Your task to perform on an android device: Open calendar and show me the first week of next month Image 0: 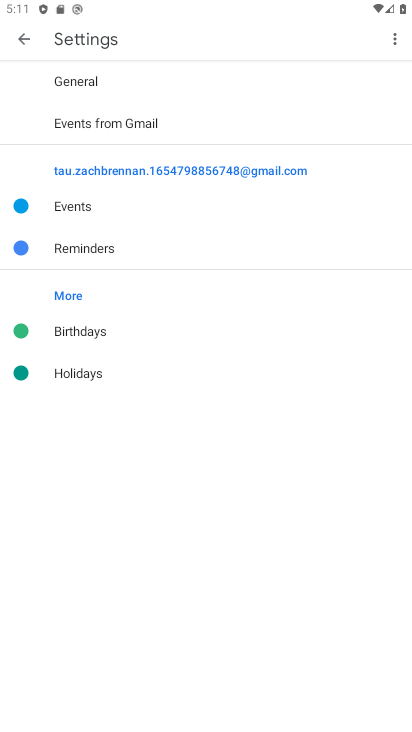
Step 0: press home button
Your task to perform on an android device: Open calendar and show me the first week of next month Image 1: 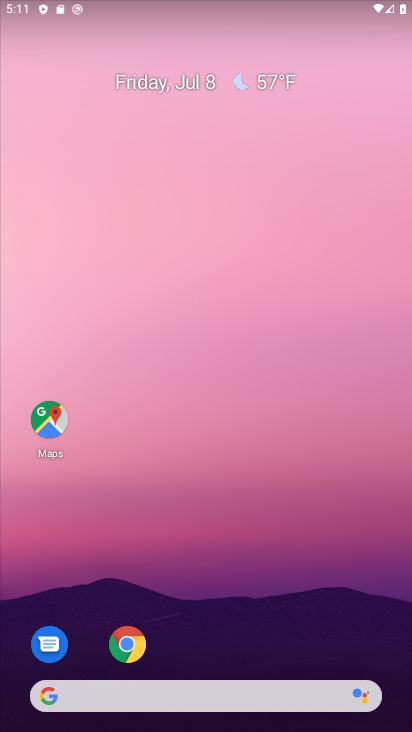
Step 1: drag from (189, 700) to (163, 186)
Your task to perform on an android device: Open calendar and show me the first week of next month Image 2: 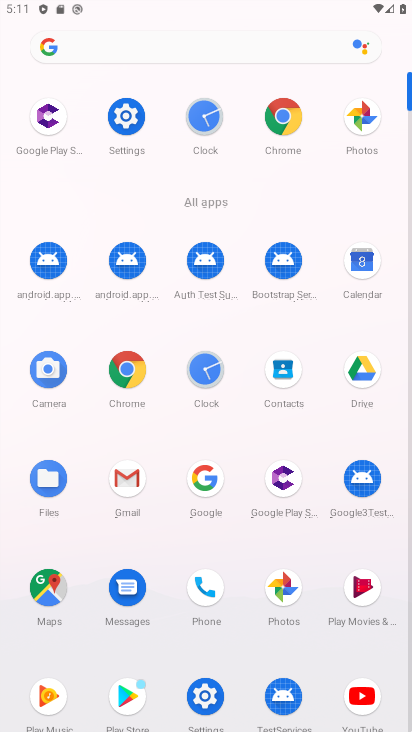
Step 2: click (362, 259)
Your task to perform on an android device: Open calendar and show me the first week of next month Image 3: 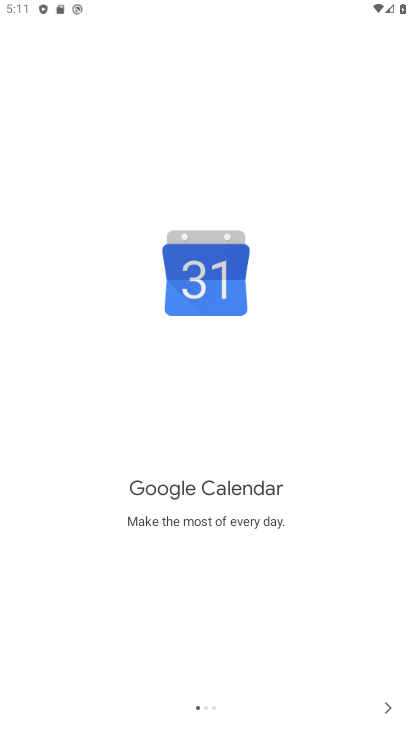
Step 3: click (386, 703)
Your task to perform on an android device: Open calendar and show me the first week of next month Image 4: 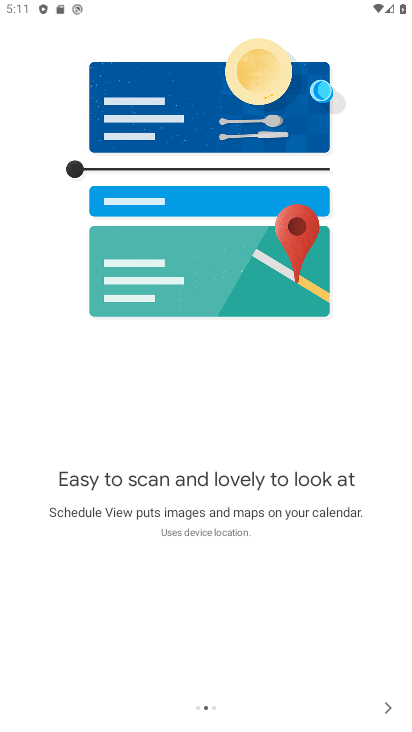
Step 4: click (386, 703)
Your task to perform on an android device: Open calendar and show me the first week of next month Image 5: 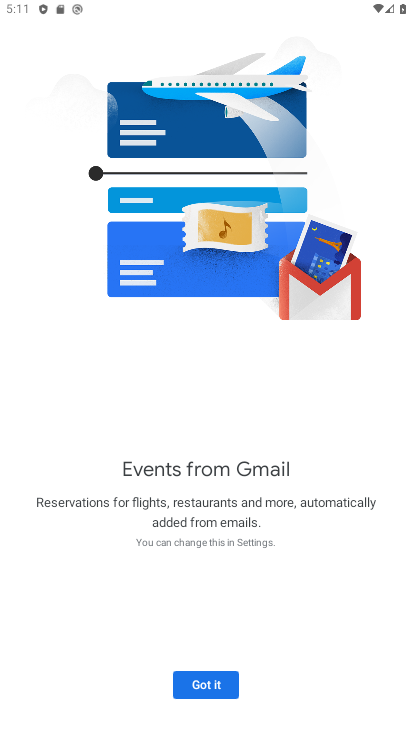
Step 5: click (218, 687)
Your task to perform on an android device: Open calendar and show me the first week of next month Image 6: 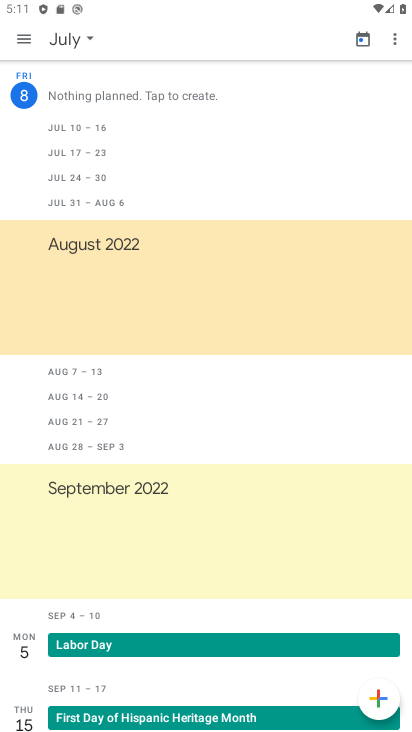
Step 6: click (393, 41)
Your task to perform on an android device: Open calendar and show me the first week of next month Image 7: 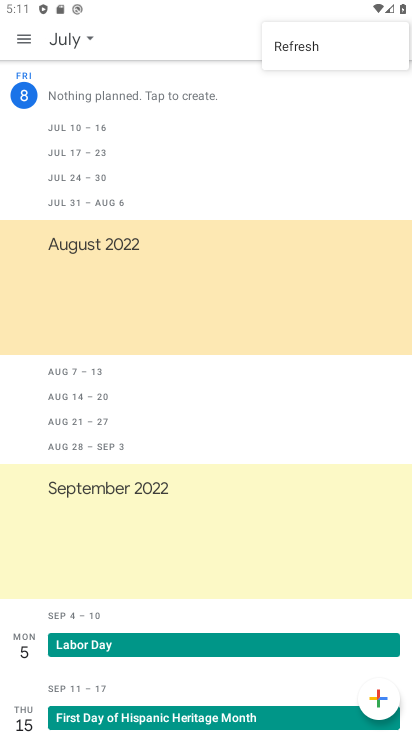
Step 7: click (24, 38)
Your task to perform on an android device: Open calendar and show me the first week of next month Image 8: 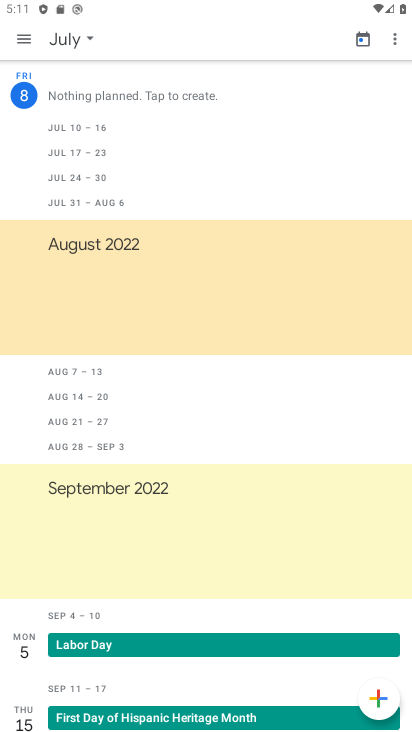
Step 8: click (85, 33)
Your task to perform on an android device: Open calendar and show me the first week of next month Image 9: 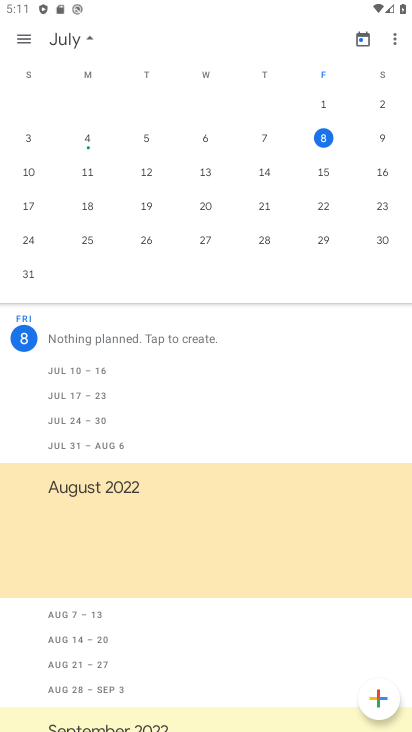
Step 9: drag from (383, 199) to (7, 235)
Your task to perform on an android device: Open calendar and show me the first week of next month Image 10: 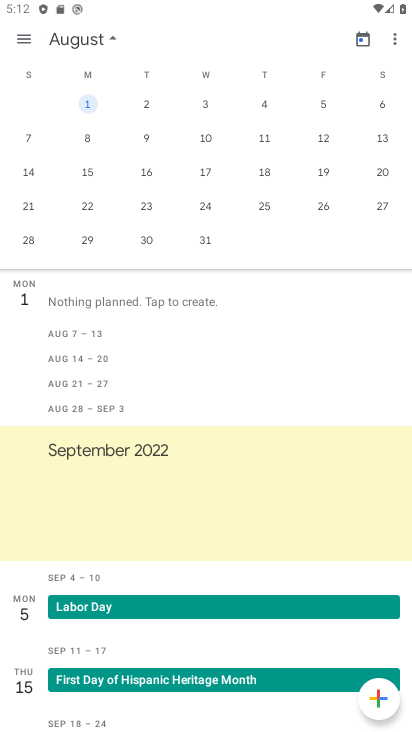
Step 10: click (88, 97)
Your task to perform on an android device: Open calendar and show me the first week of next month Image 11: 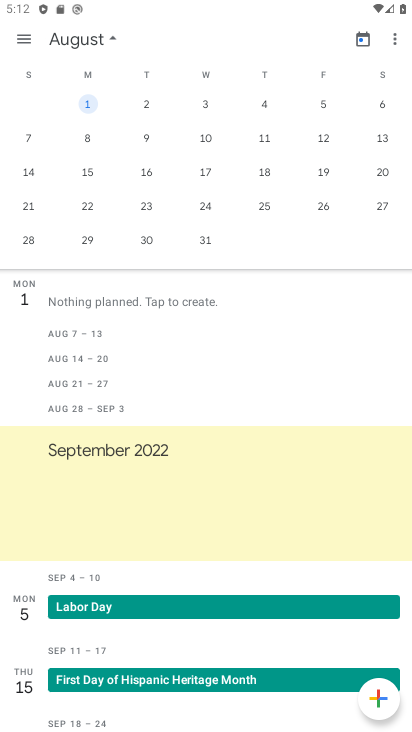
Step 11: click (23, 35)
Your task to perform on an android device: Open calendar and show me the first week of next month Image 12: 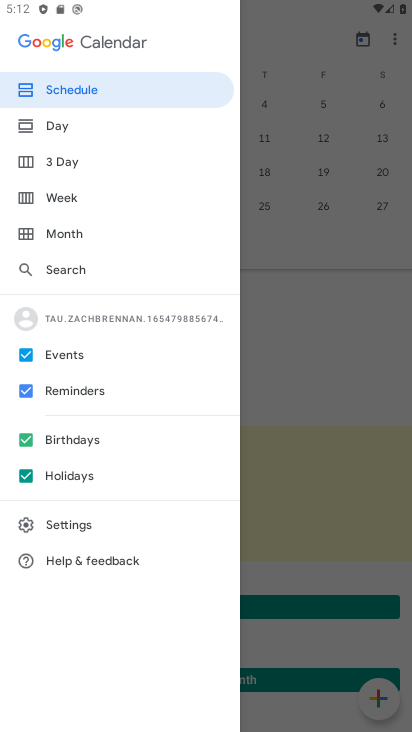
Step 12: click (69, 251)
Your task to perform on an android device: Open calendar and show me the first week of next month Image 13: 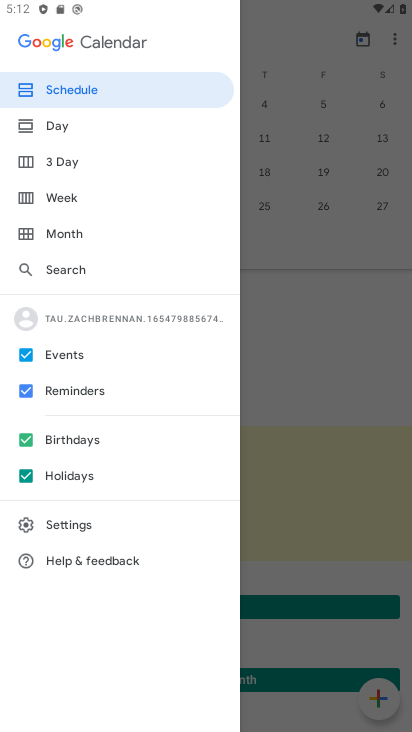
Step 13: click (73, 234)
Your task to perform on an android device: Open calendar and show me the first week of next month Image 14: 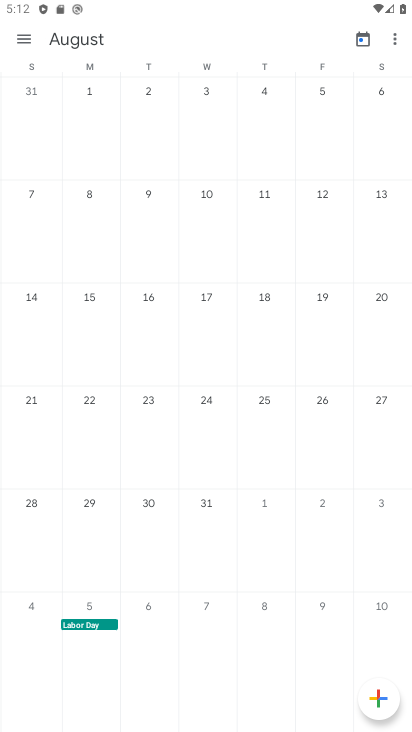
Step 14: click (28, 40)
Your task to perform on an android device: Open calendar and show me the first week of next month Image 15: 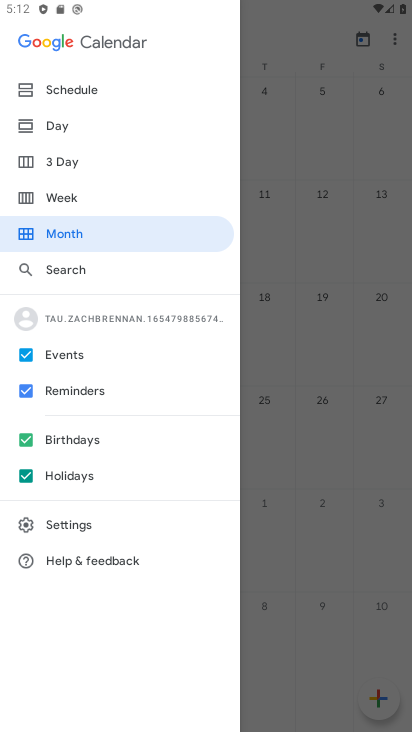
Step 15: click (61, 185)
Your task to perform on an android device: Open calendar and show me the first week of next month Image 16: 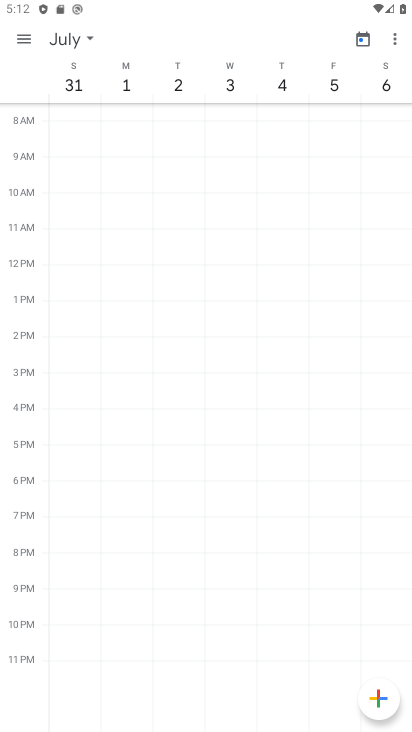
Step 16: click (363, 35)
Your task to perform on an android device: Open calendar and show me the first week of next month Image 17: 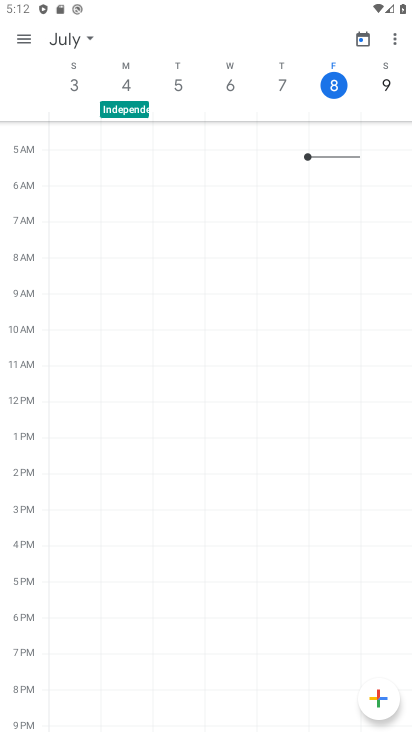
Step 17: click (94, 37)
Your task to perform on an android device: Open calendar and show me the first week of next month Image 18: 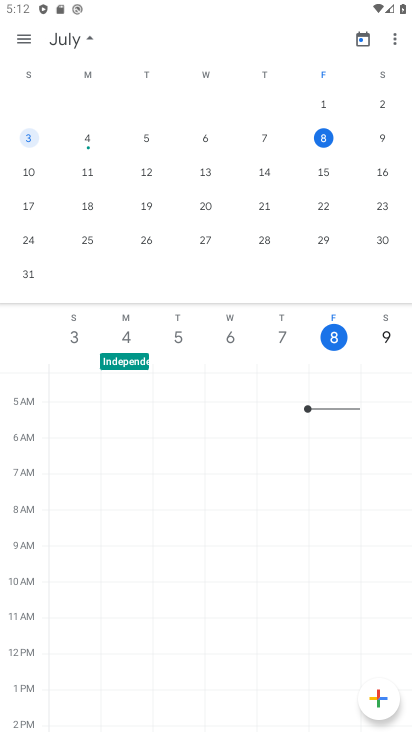
Step 18: drag from (397, 176) to (18, 299)
Your task to perform on an android device: Open calendar and show me the first week of next month Image 19: 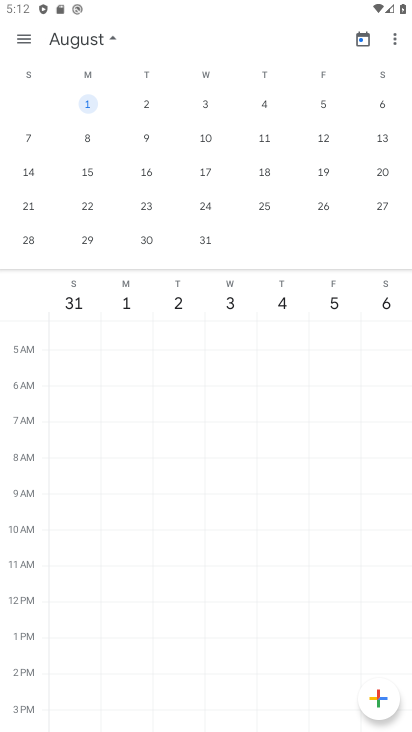
Step 19: click (85, 93)
Your task to perform on an android device: Open calendar and show me the first week of next month Image 20: 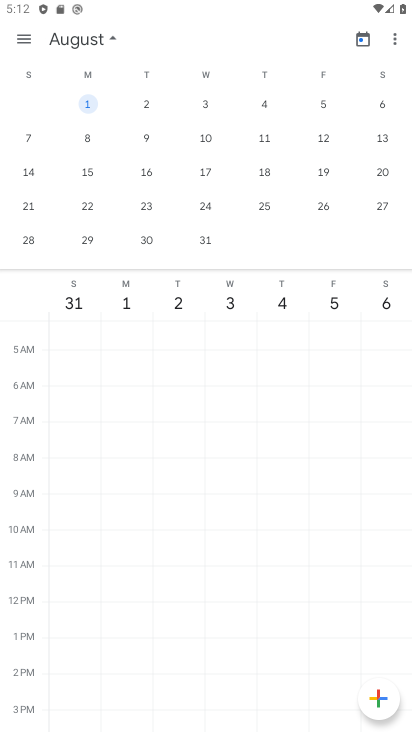
Step 20: click (25, 44)
Your task to perform on an android device: Open calendar and show me the first week of next month Image 21: 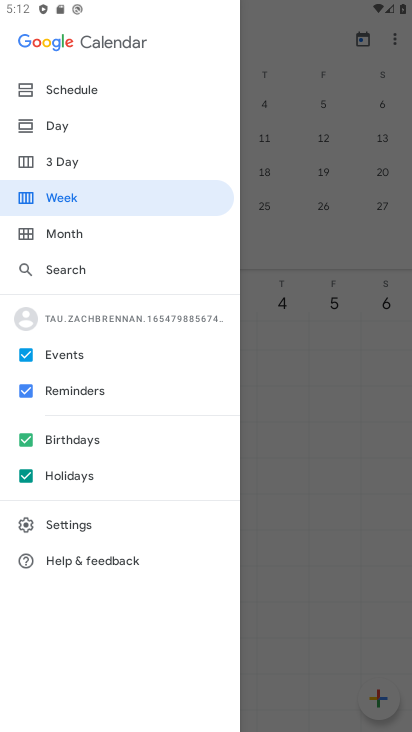
Step 21: click (84, 188)
Your task to perform on an android device: Open calendar and show me the first week of next month Image 22: 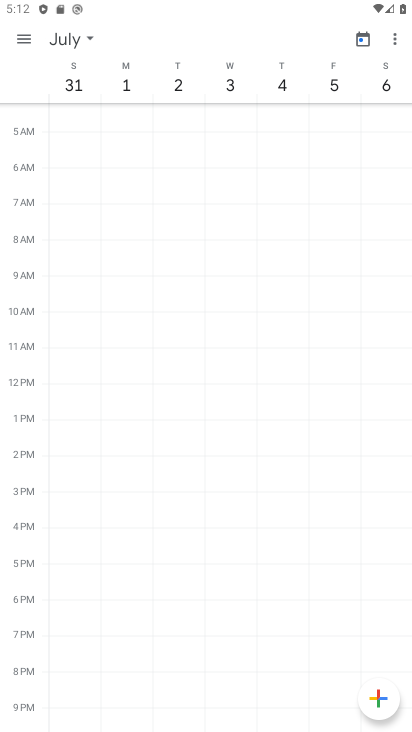
Step 22: task complete